Your task to perform on an android device: turn pop-ups on in chrome Image 0: 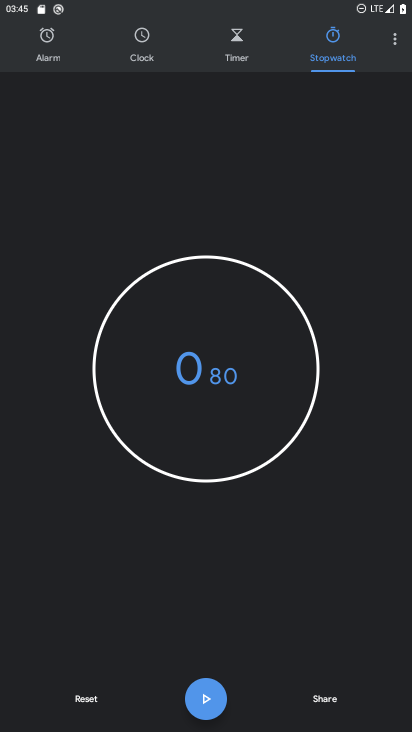
Step 0: press home button
Your task to perform on an android device: turn pop-ups on in chrome Image 1: 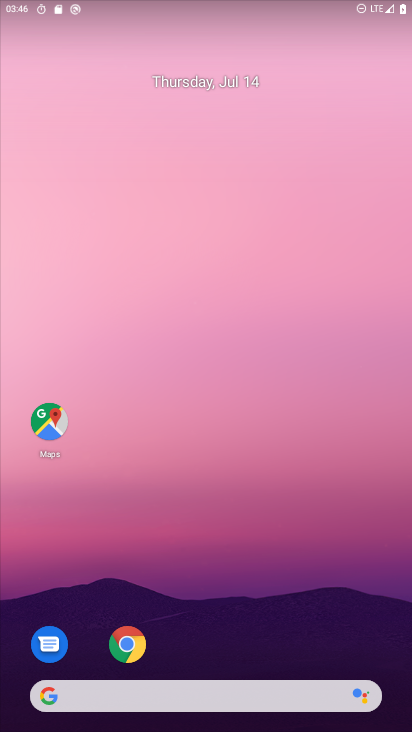
Step 1: click (124, 644)
Your task to perform on an android device: turn pop-ups on in chrome Image 2: 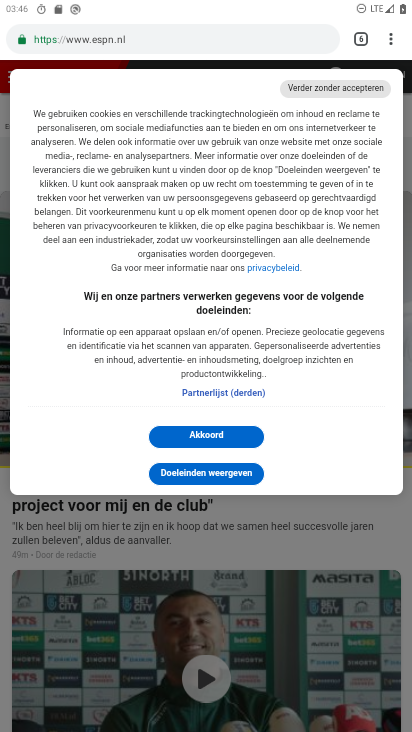
Step 2: drag from (394, 34) to (255, 465)
Your task to perform on an android device: turn pop-ups on in chrome Image 3: 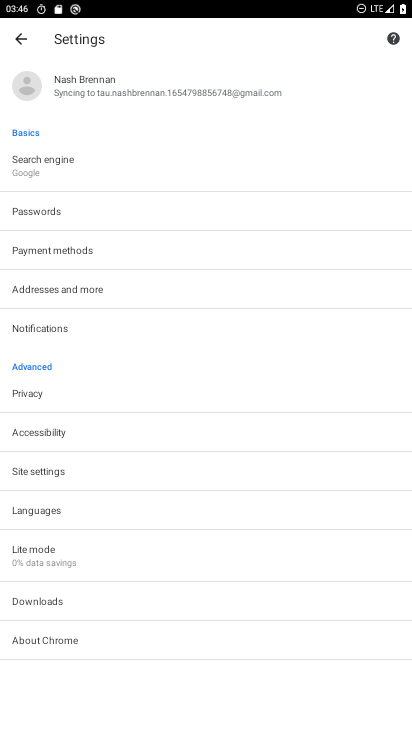
Step 3: click (84, 472)
Your task to perform on an android device: turn pop-ups on in chrome Image 4: 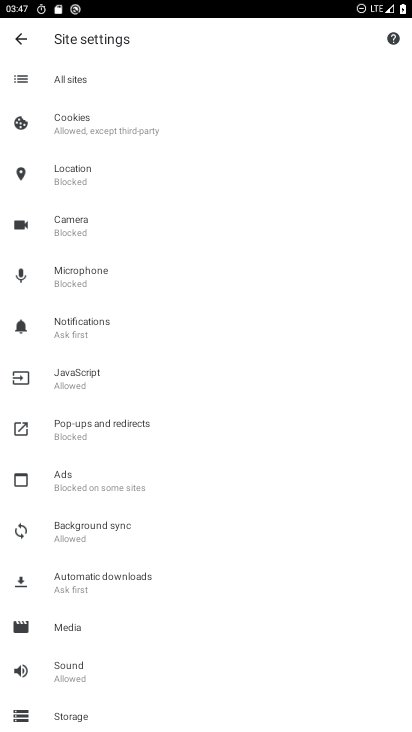
Step 4: click (107, 426)
Your task to perform on an android device: turn pop-ups on in chrome Image 5: 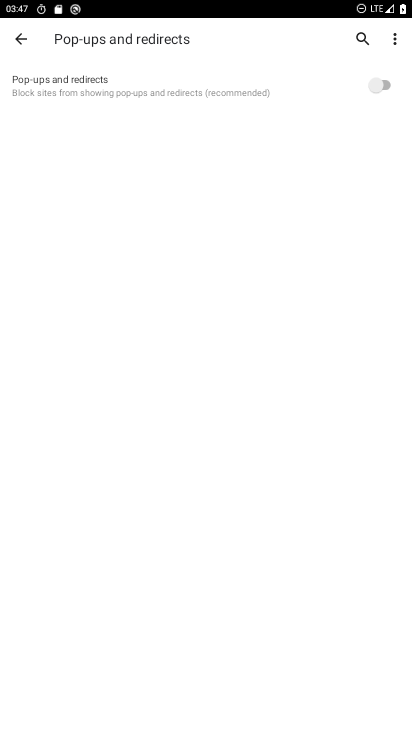
Step 5: click (394, 94)
Your task to perform on an android device: turn pop-ups on in chrome Image 6: 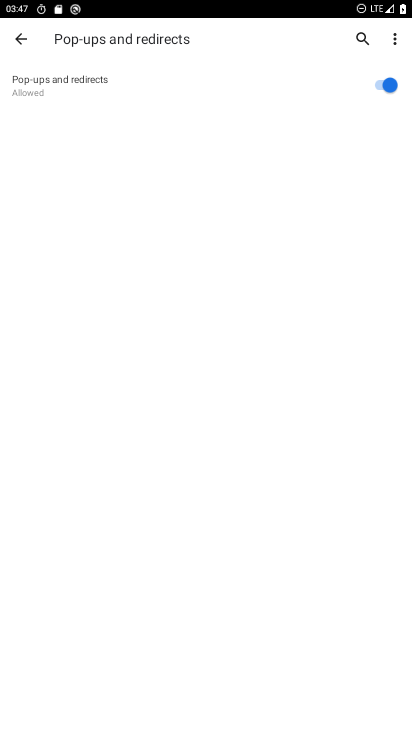
Step 6: task complete